Your task to perform on an android device: Go to Reddit.com Image 0: 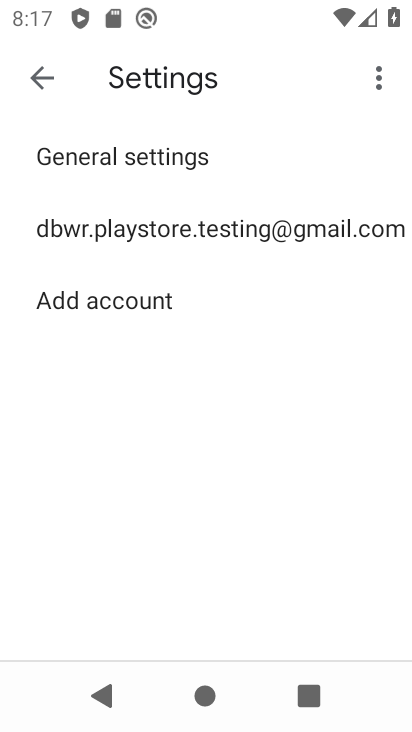
Step 0: press home button
Your task to perform on an android device: Go to Reddit.com Image 1: 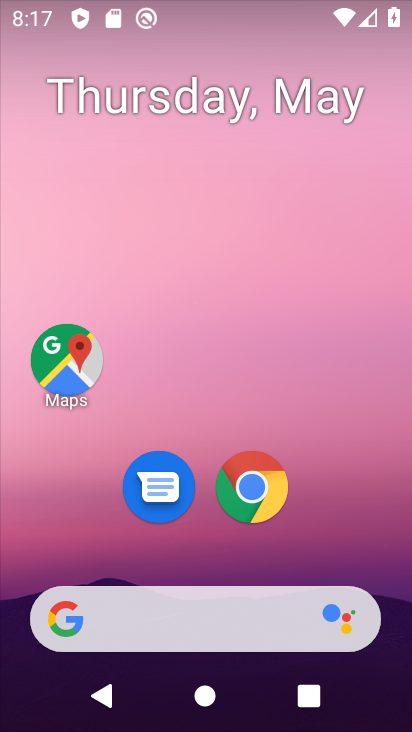
Step 1: click (243, 498)
Your task to perform on an android device: Go to Reddit.com Image 2: 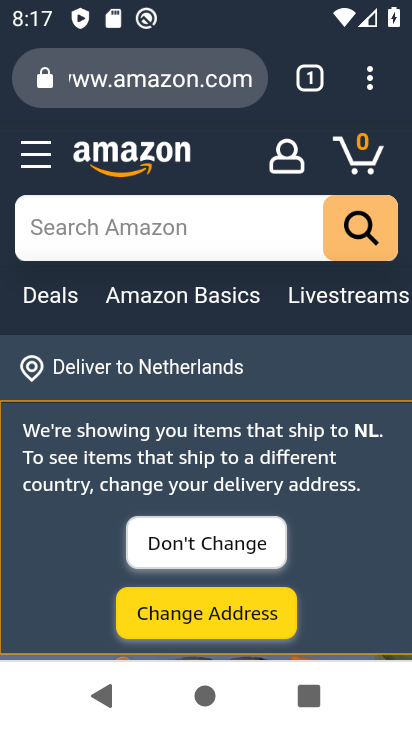
Step 2: click (148, 97)
Your task to perform on an android device: Go to Reddit.com Image 3: 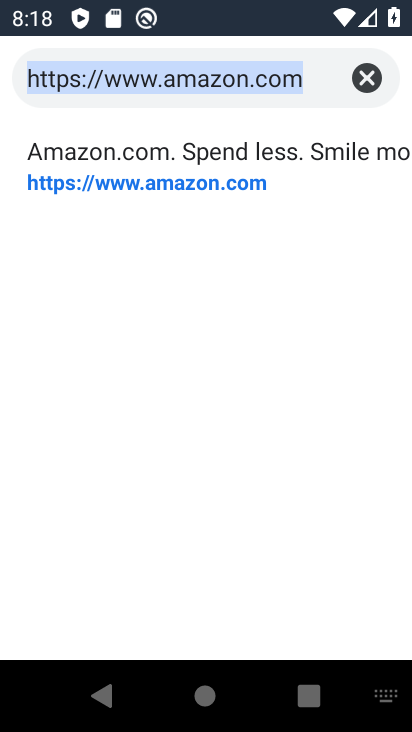
Step 3: type "reddit.com"
Your task to perform on an android device: Go to Reddit.com Image 4: 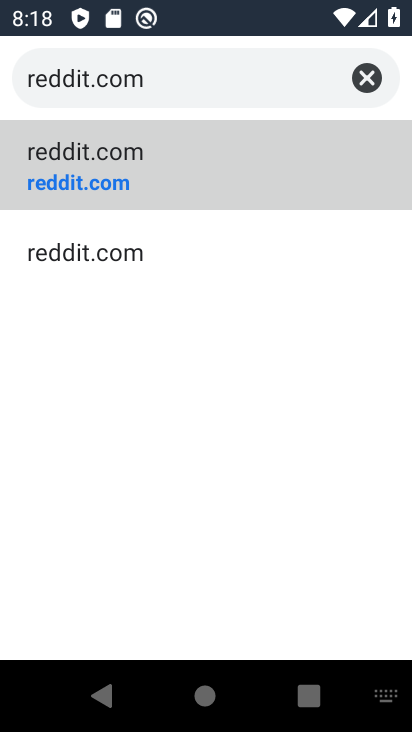
Step 4: click (103, 164)
Your task to perform on an android device: Go to Reddit.com Image 5: 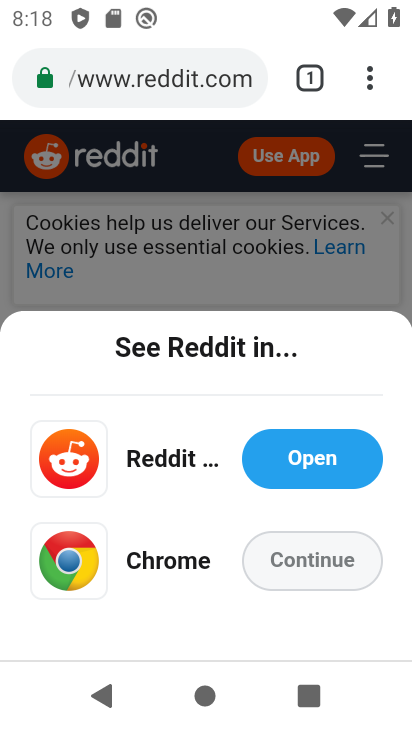
Step 5: click (306, 574)
Your task to perform on an android device: Go to Reddit.com Image 6: 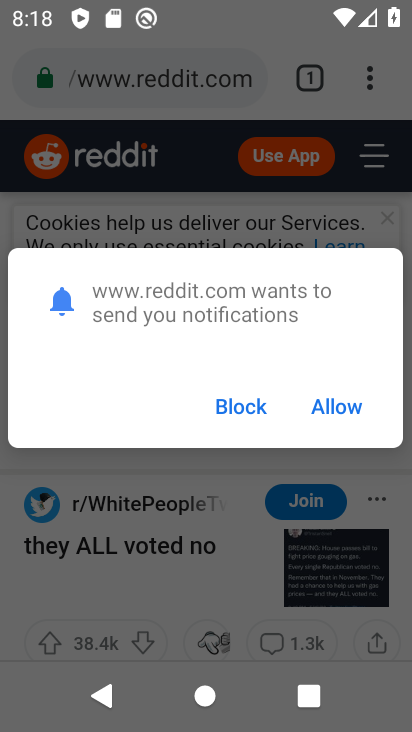
Step 6: task complete